Your task to perform on an android device: Search for alienware area 51 on newegg.com, select the first entry, and add it to the cart. Image 0: 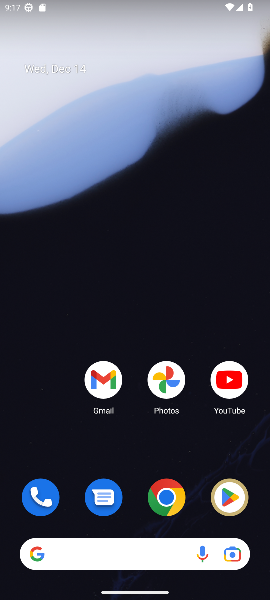
Step 0: click (171, 496)
Your task to perform on an android device: Search for alienware area 51 on newegg.com, select the first entry, and add it to the cart. Image 1: 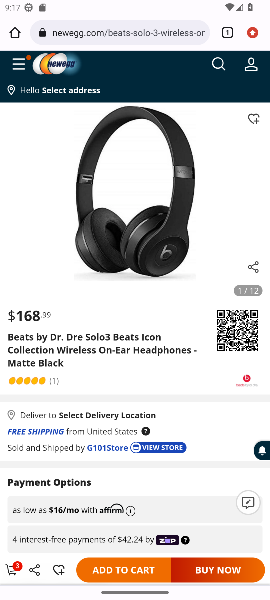
Step 1: click (73, 39)
Your task to perform on an android device: Search for alienware area 51 on newegg.com, select the first entry, and add it to the cart. Image 2: 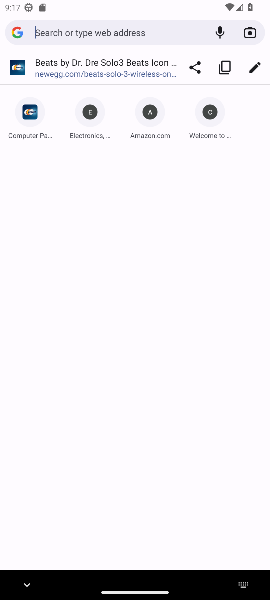
Step 2: type "newegg.com"
Your task to perform on an android device: Search for alienware area 51 on newegg.com, select the first entry, and add it to the cart. Image 3: 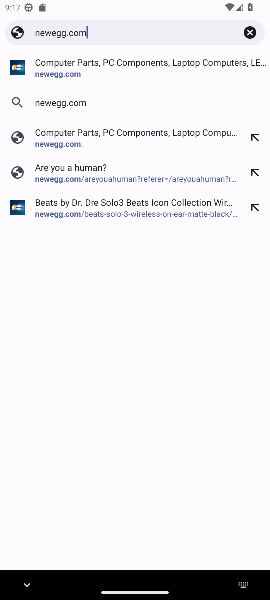
Step 3: click (101, 71)
Your task to perform on an android device: Search for alienware area 51 on newegg.com, select the first entry, and add it to the cart. Image 4: 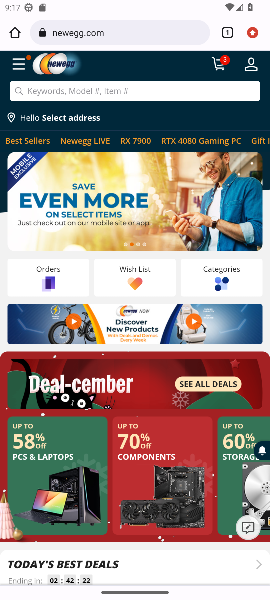
Step 4: click (168, 91)
Your task to perform on an android device: Search for alienware area 51 on newegg.com, select the first entry, and add it to the cart. Image 5: 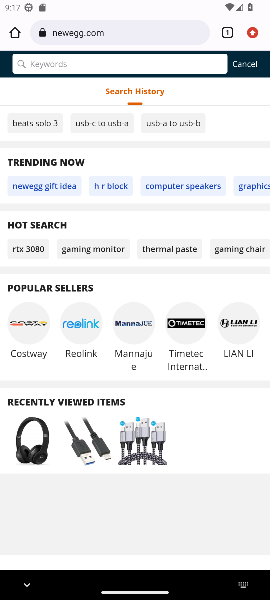
Step 5: type "alienware area 51"
Your task to perform on an android device: Search for alienware area 51 on newegg.com, select the first entry, and add it to the cart. Image 6: 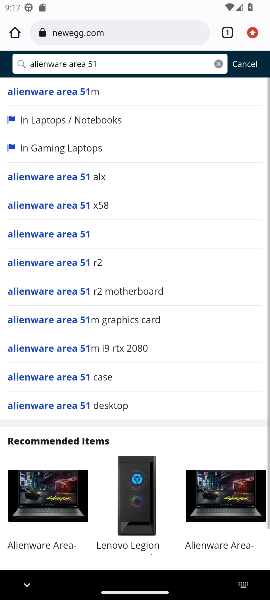
Step 6: press enter
Your task to perform on an android device: Search for alienware area 51 on newegg.com, select the first entry, and add it to the cart. Image 7: 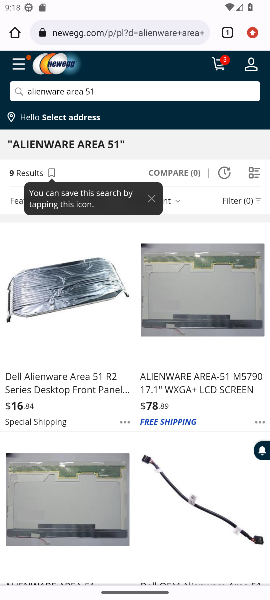
Step 7: click (92, 306)
Your task to perform on an android device: Search for alienware area 51 on newegg.com, select the first entry, and add it to the cart. Image 8: 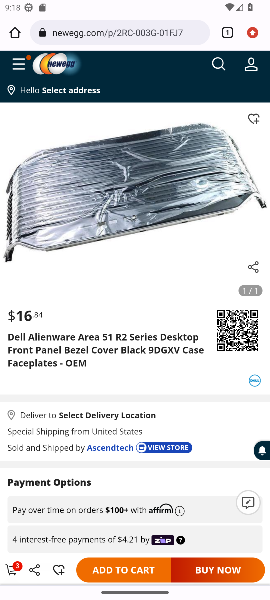
Step 8: click (110, 573)
Your task to perform on an android device: Search for alienware area 51 on newegg.com, select the first entry, and add it to the cart. Image 9: 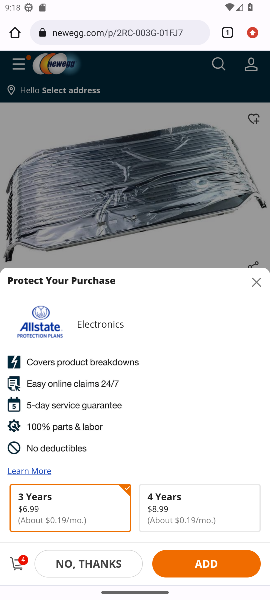
Step 9: click (189, 560)
Your task to perform on an android device: Search for alienware area 51 on newegg.com, select the first entry, and add it to the cart. Image 10: 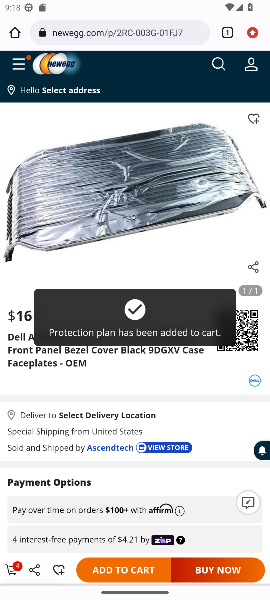
Step 10: task complete